Your task to perform on an android device: turn smart compose on in the gmail app Image 0: 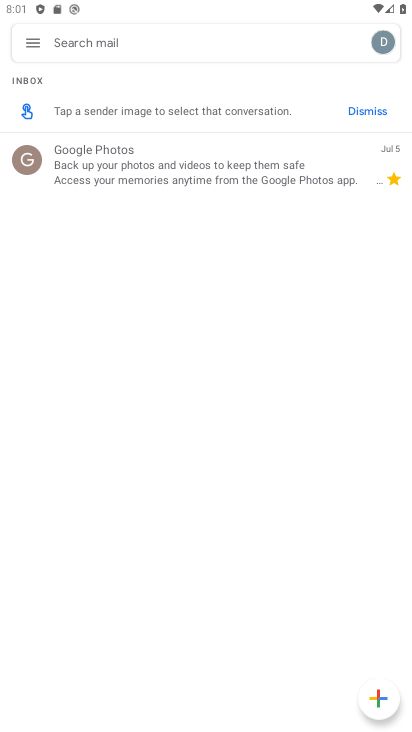
Step 0: press home button
Your task to perform on an android device: turn smart compose on in the gmail app Image 1: 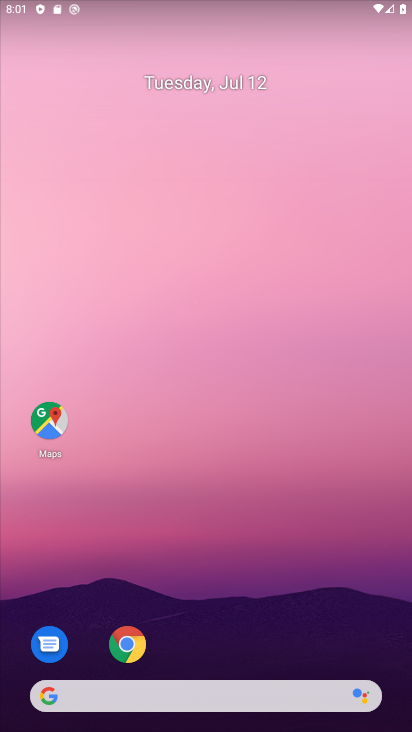
Step 1: drag from (34, 719) to (261, 90)
Your task to perform on an android device: turn smart compose on in the gmail app Image 2: 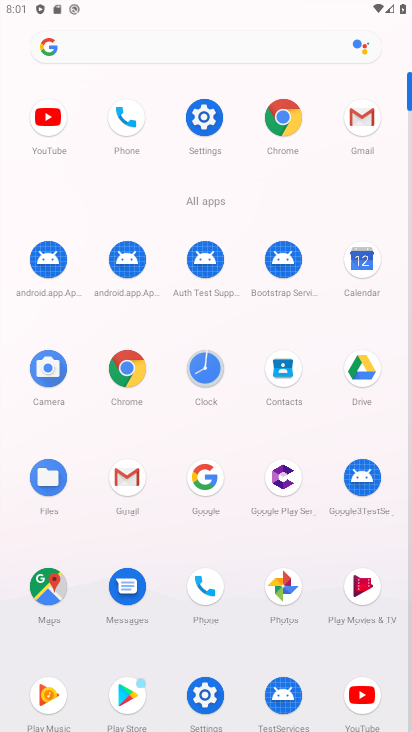
Step 2: click (122, 484)
Your task to perform on an android device: turn smart compose on in the gmail app Image 3: 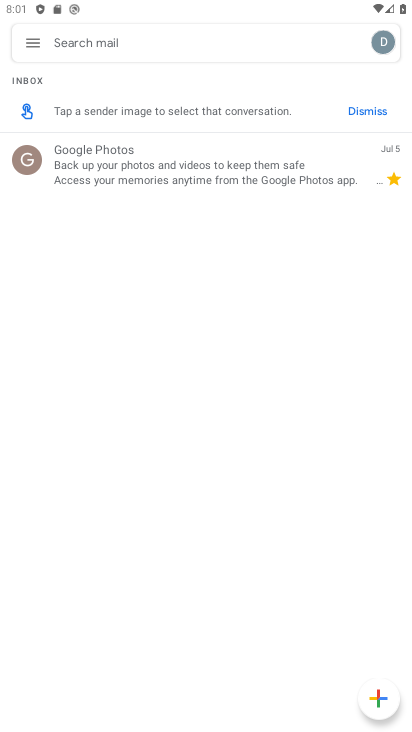
Step 3: click (29, 47)
Your task to perform on an android device: turn smart compose on in the gmail app Image 4: 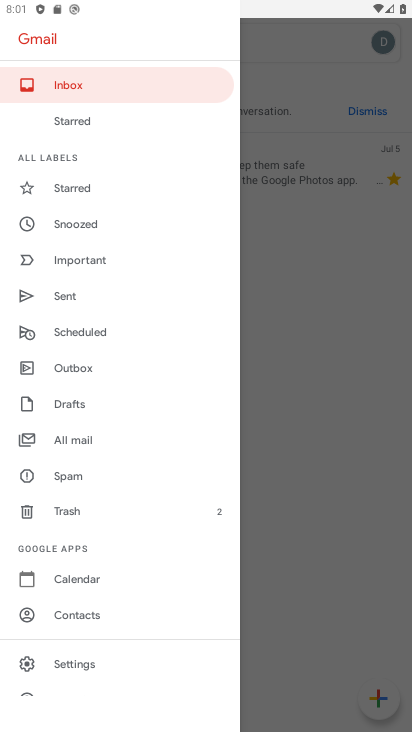
Step 4: click (88, 671)
Your task to perform on an android device: turn smart compose on in the gmail app Image 5: 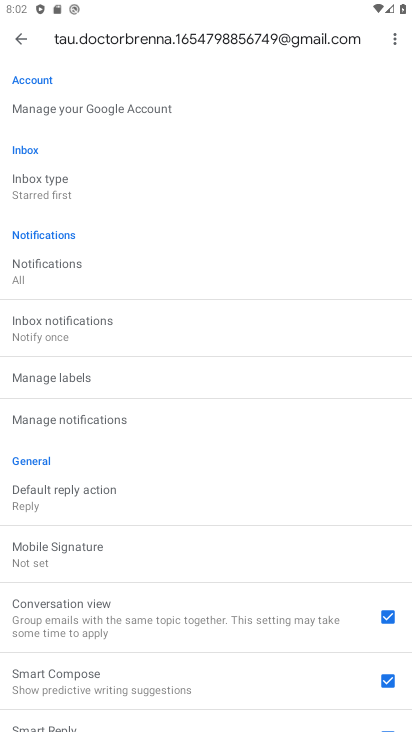
Step 5: task complete